Your task to perform on an android device: delete the emails in spam in the gmail app Image 0: 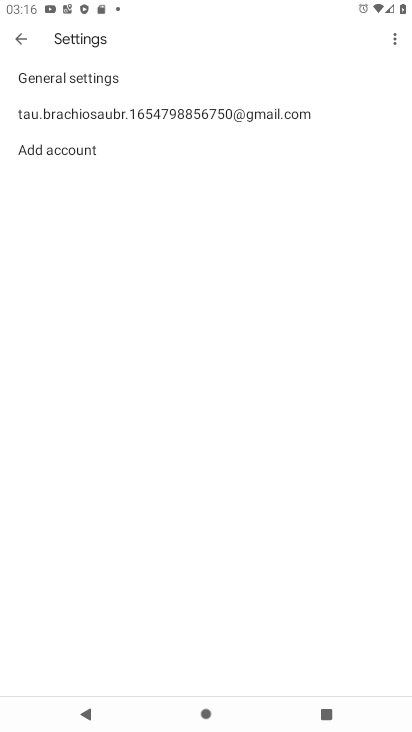
Step 0: press home button
Your task to perform on an android device: delete the emails in spam in the gmail app Image 1: 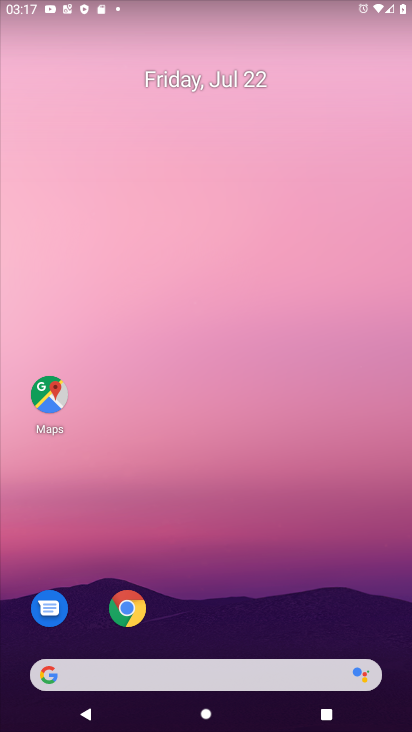
Step 1: drag from (374, 623) to (219, 99)
Your task to perform on an android device: delete the emails in spam in the gmail app Image 2: 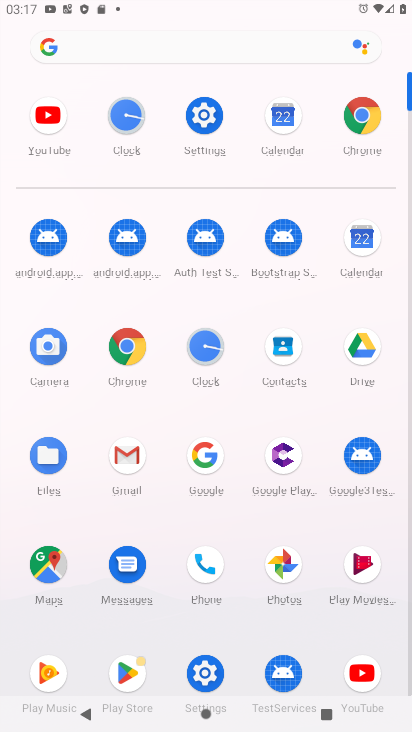
Step 2: click (130, 455)
Your task to perform on an android device: delete the emails in spam in the gmail app Image 3: 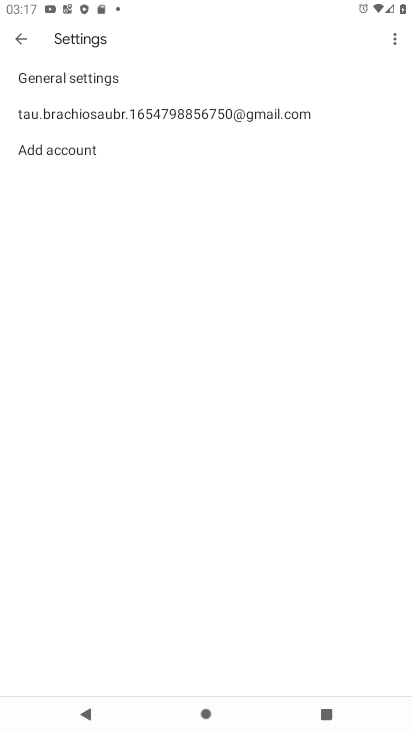
Step 3: click (26, 52)
Your task to perform on an android device: delete the emails in spam in the gmail app Image 4: 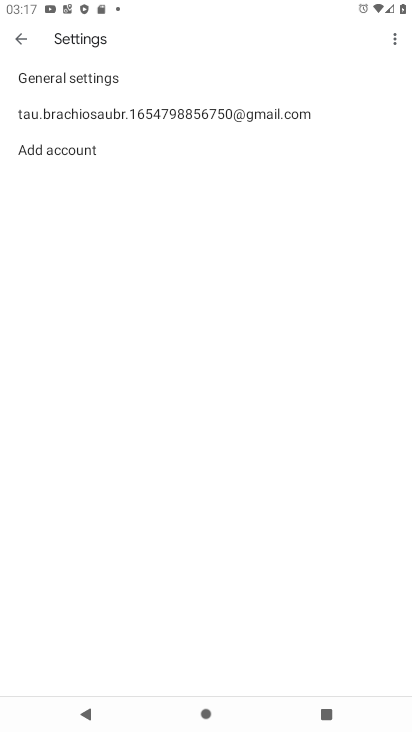
Step 4: click (22, 43)
Your task to perform on an android device: delete the emails in spam in the gmail app Image 5: 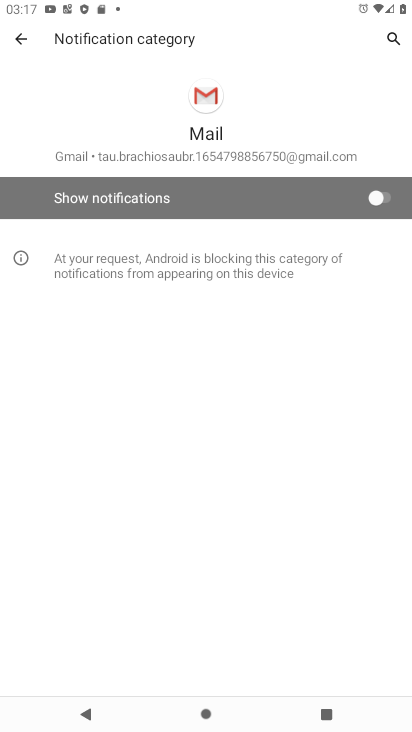
Step 5: click (19, 44)
Your task to perform on an android device: delete the emails in spam in the gmail app Image 6: 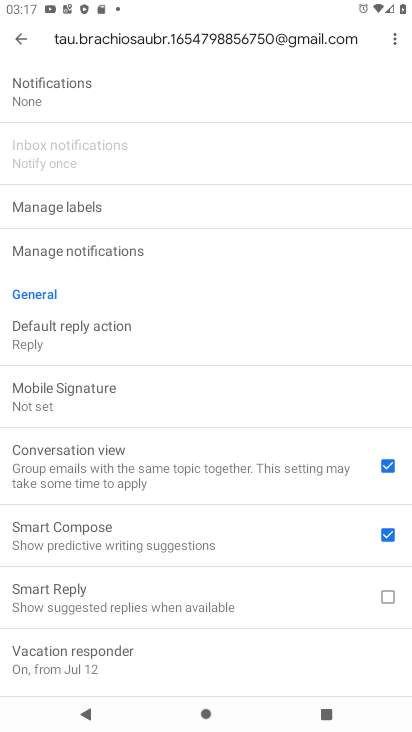
Step 6: click (25, 44)
Your task to perform on an android device: delete the emails in spam in the gmail app Image 7: 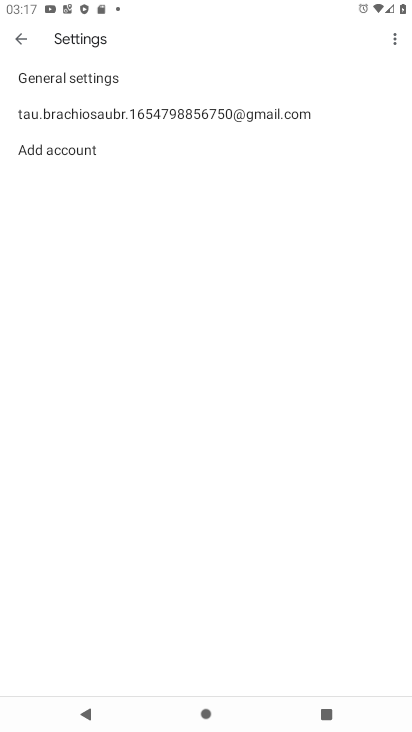
Step 7: click (25, 44)
Your task to perform on an android device: delete the emails in spam in the gmail app Image 8: 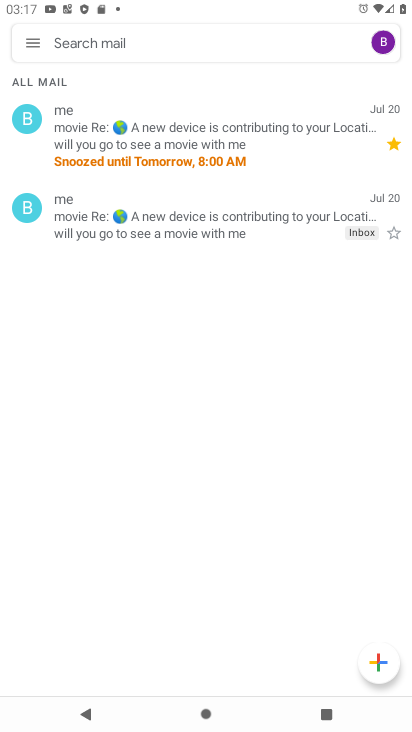
Step 8: click (56, 134)
Your task to perform on an android device: delete the emails in spam in the gmail app Image 9: 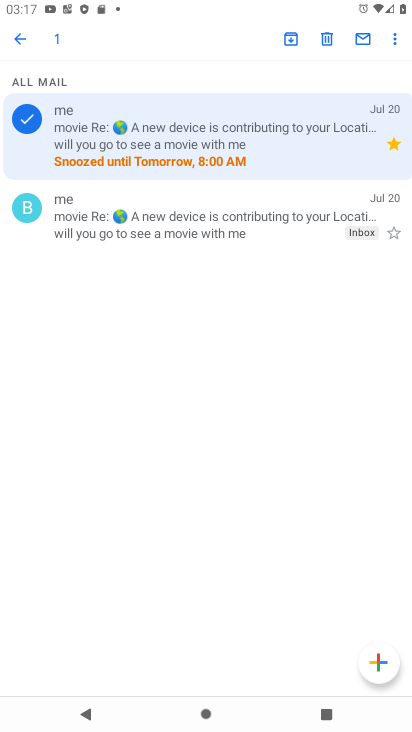
Step 9: click (20, 37)
Your task to perform on an android device: delete the emails in spam in the gmail app Image 10: 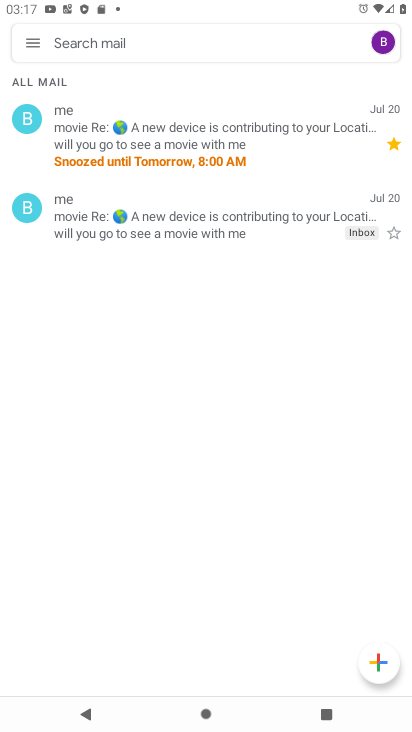
Step 10: click (20, 37)
Your task to perform on an android device: delete the emails in spam in the gmail app Image 11: 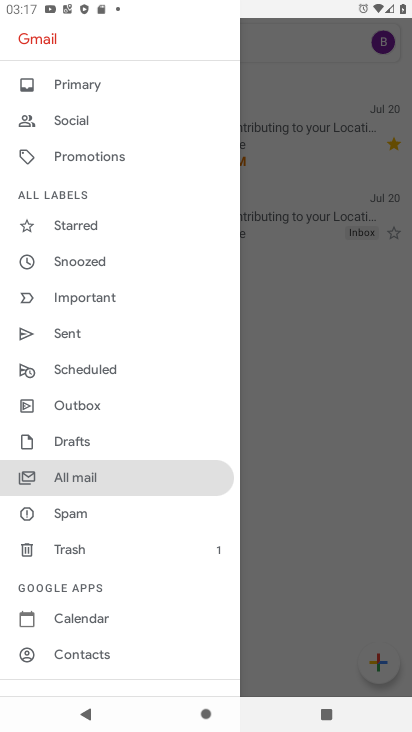
Step 11: click (100, 514)
Your task to perform on an android device: delete the emails in spam in the gmail app Image 12: 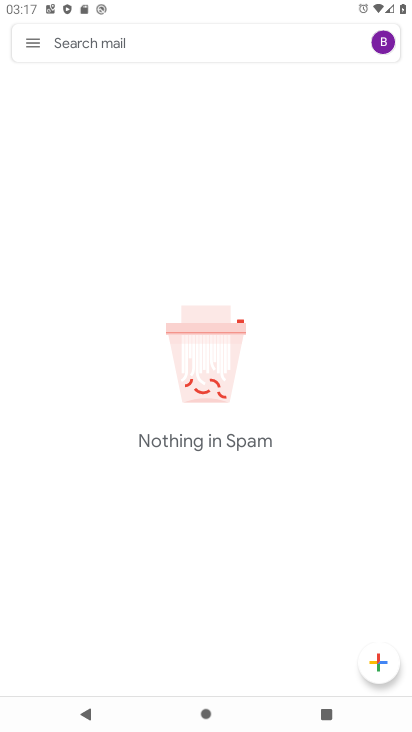
Step 12: task complete